Your task to perform on an android device: refresh tabs in the chrome app Image 0: 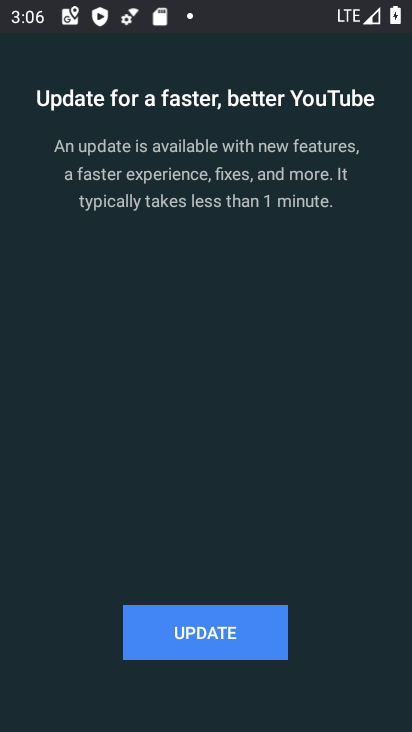
Step 0: press home button
Your task to perform on an android device: refresh tabs in the chrome app Image 1: 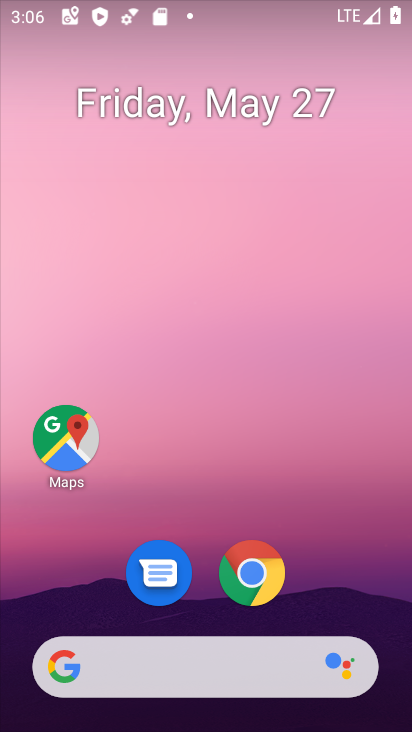
Step 1: click (259, 573)
Your task to perform on an android device: refresh tabs in the chrome app Image 2: 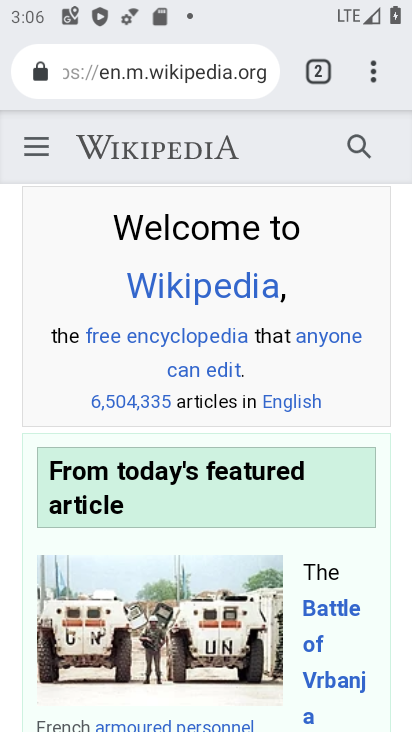
Step 2: click (377, 71)
Your task to perform on an android device: refresh tabs in the chrome app Image 3: 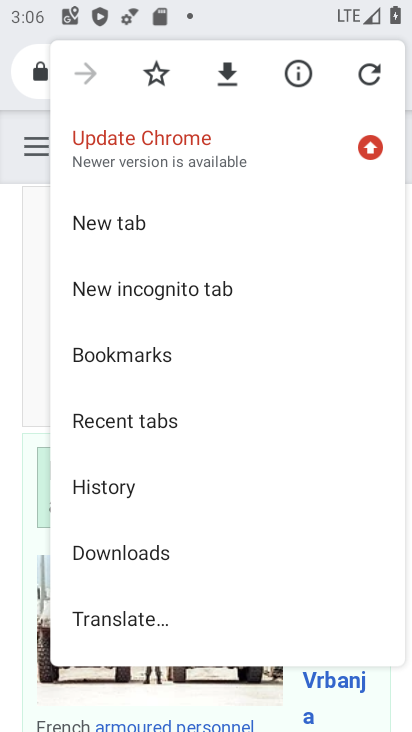
Step 3: click (369, 71)
Your task to perform on an android device: refresh tabs in the chrome app Image 4: 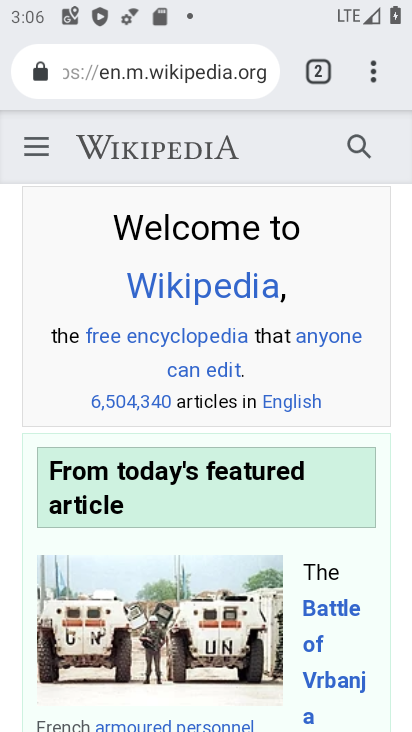
Step 4: task complete